Your task to perform on an android device: View the shopping cart on newegg.com. Search for logitech g903 on newegg.com, select the first entry, and add it to the cart. Image 0: 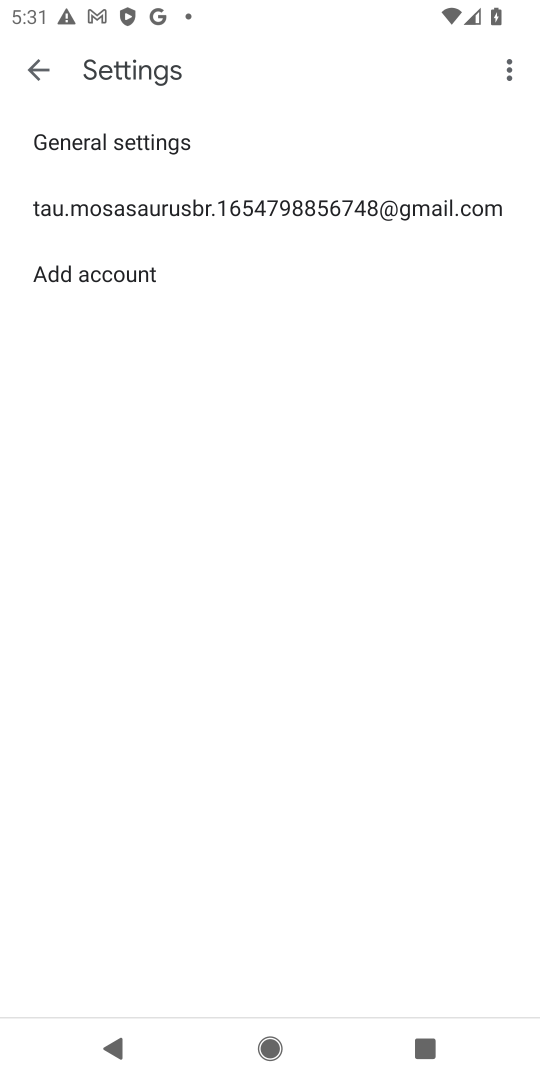
Step 0: press home button
Your task to perform on an android device: View the shopping cart on newegg.com. Search for logitech g903 on newegg.com, select the first entry, and add it to the cart. Image 1: 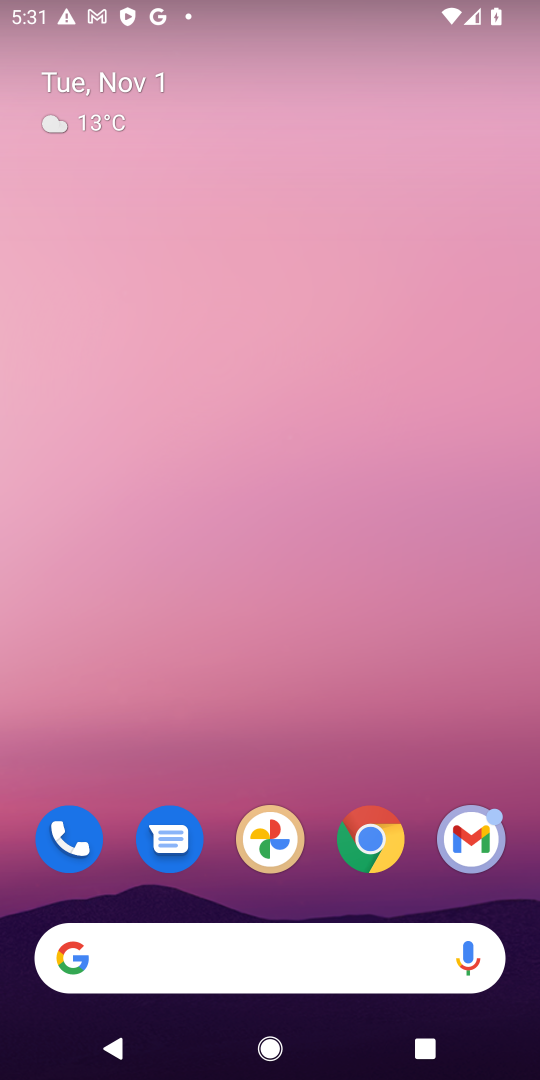
Step 1: drag from (326, 875) to (375, 159)
Your task to perform on an android device: View the shopping cart on newegg.com. Search for logitech g903 on newegg.com, select the first entry, and add it to the cart. Image 2: 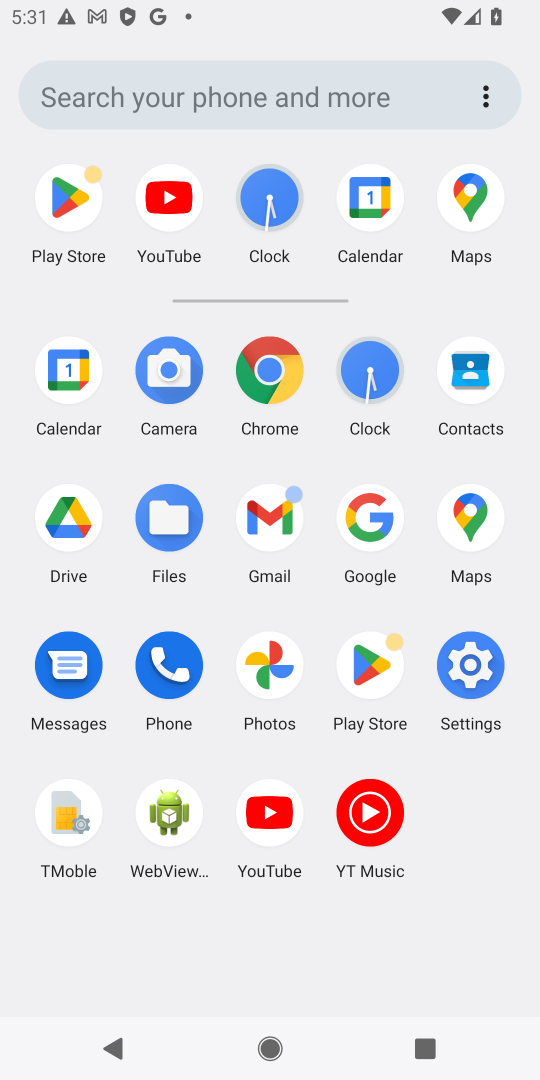
Step 2: click (264, 360)
Your task to perform on an android device: View the shopping cart on newegg.com. Search for logitech g903 on newegg.com, select the first entry, and add it to the cart. Image 3: 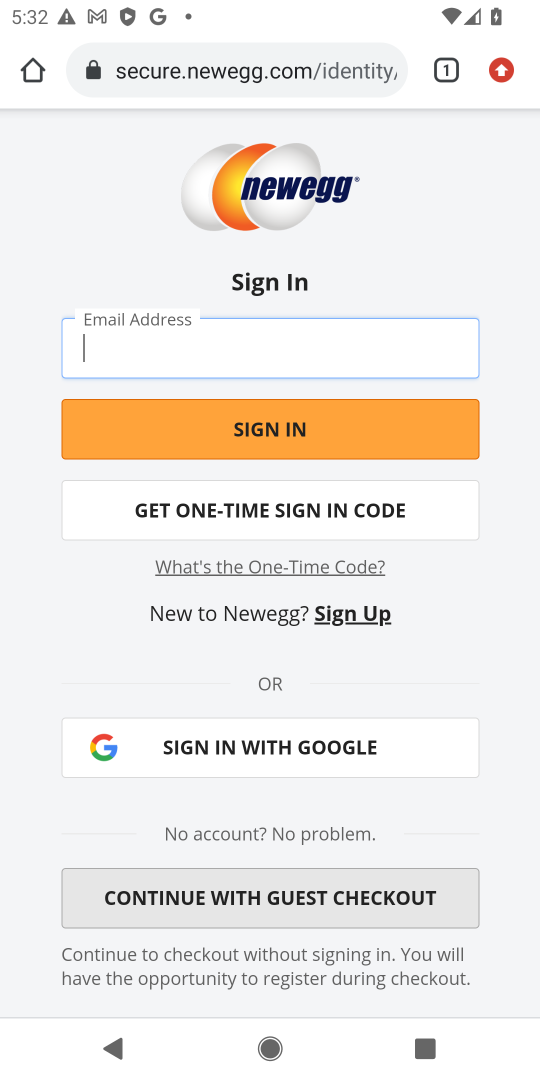
Step 3: click (344, 75)
Your task to perform on an android device: View the shopping cart on newegg.com. Search for logitech g903 on newegg.com, select the first entry, and add it to the cart. Image 4: 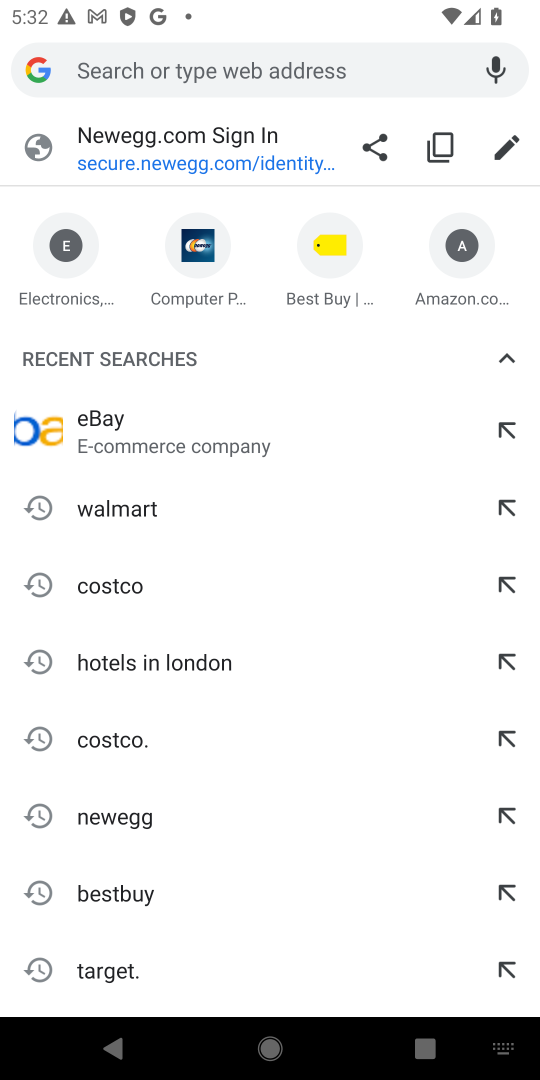
Step 4: type "newegg.com"
Your task to perform on an android device: View the shopping cart on newegg.com. Search for logitech g903 on newegg.com, select the first entry, and add it to the cart. Image 5: 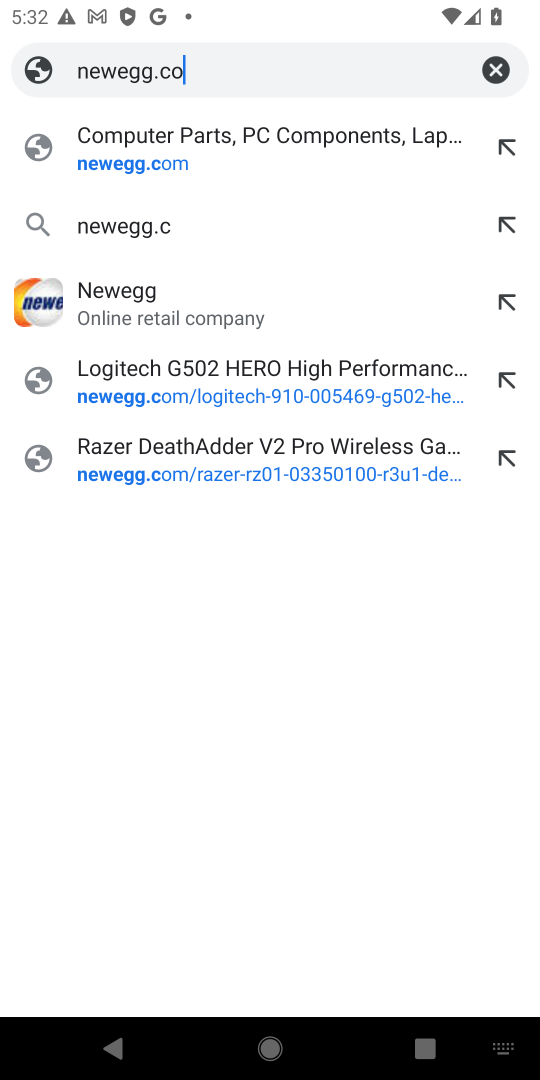
Step 5: press enter
Your task to perform on an android device: View the shopping cart on newegg.com. Search for logitech g903 on newegg.com, select the first entry, and add it to the cart. Image 6: 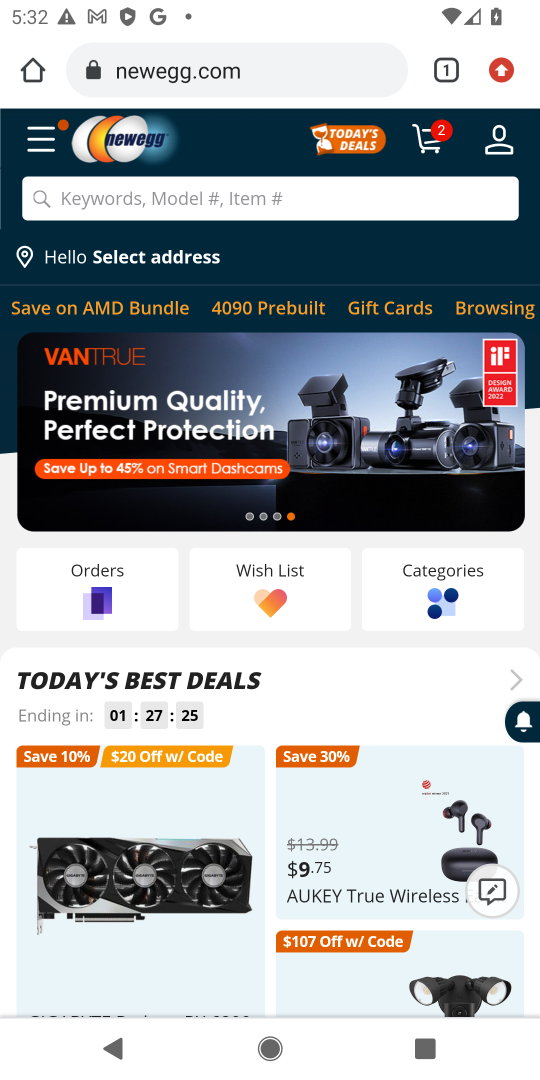
Step 6: click (440, 125)
Your task to perform on an android device: View the shopping cart on newegg.com. Search for logitech g903 on newegg.com, select the first entry, and add it to the cart. Image 7: 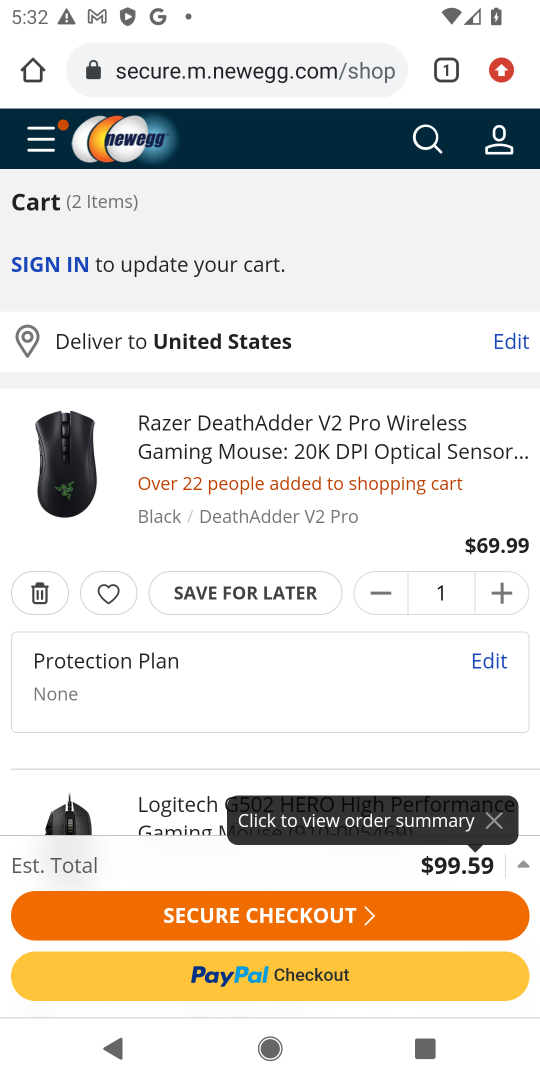
Step 7: click (435, 146)
Your task to perform on an android device: View the shopping cart on newegg.com. Search for logitech g903 on newegg.com, select the first entry, and add it to the cart. Image 8: 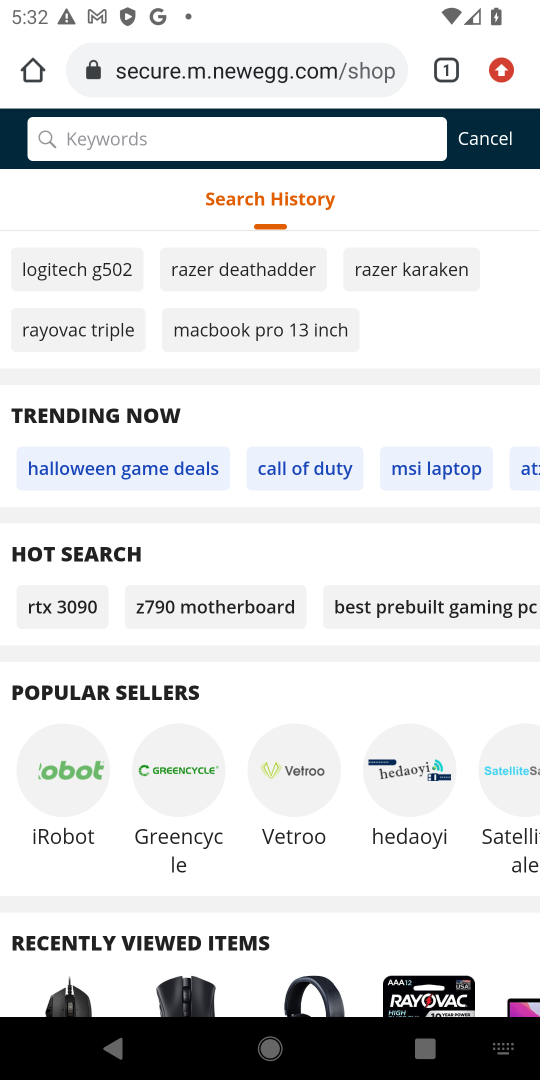
Step 8: type "logitech g903"
Your task to perform on an android device: View the shopping cart on newegg.com. Search for logitech g903 on newegg.com, select the first entry, and add it to the cart. Image 9: 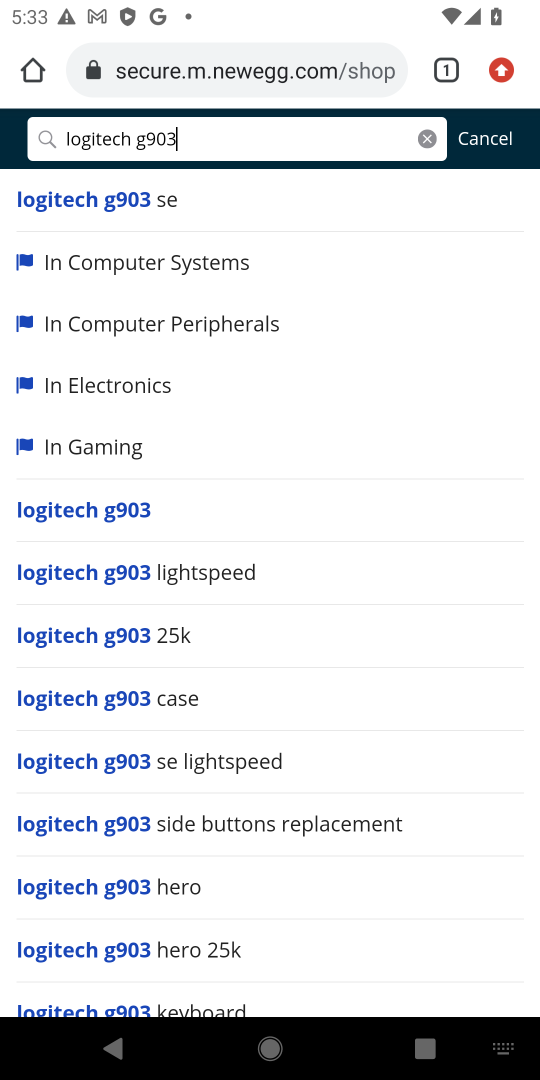
Step 9: press enter
Your task to perform on an android device: View the shopping cart on newegg.com. Search for logitech g903 on newegg.com, select the first entry, and add it to the cart. Image 10: 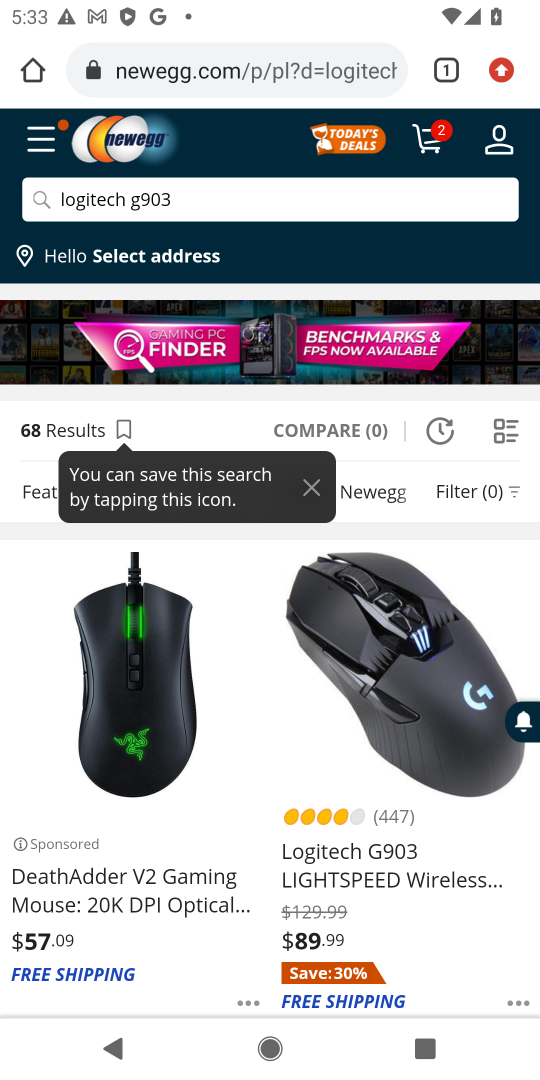
Step 10: click (422, 680)
Your task to perform on an android device: View the shopping cart on newegg.com. Search for logitech g903 on newegg.com, select the first entry, and add it to the cart. Image 11: 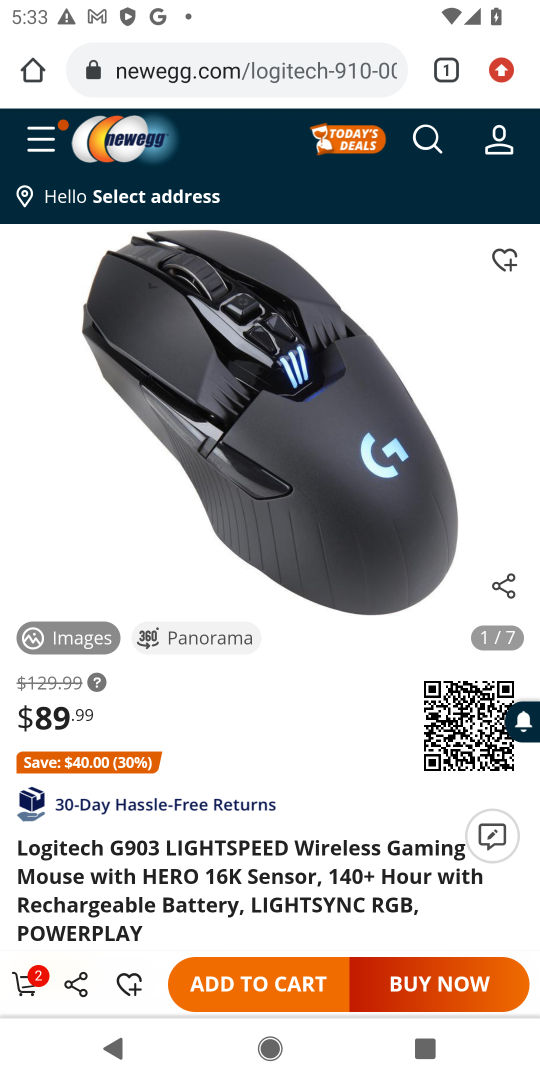
Step 11: click (289, 989)
Your task to perform on an android device: View the shopping cart on newegg.com. Search for logitech g903 on newegg.com, select the first entry, and add it to the cart. Image 12: 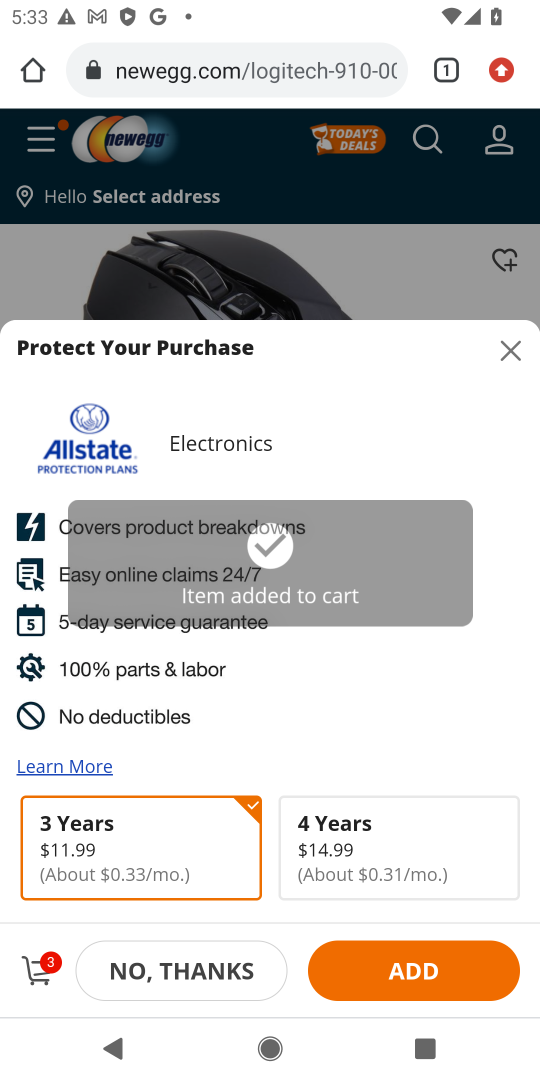
Step 12: click (37, 976)
Your task to perform on an android device: View the shopping cart on newegg.com. Search for logitech g903 on newegg.com, select the first entry, and add it to the cart. Image 13: 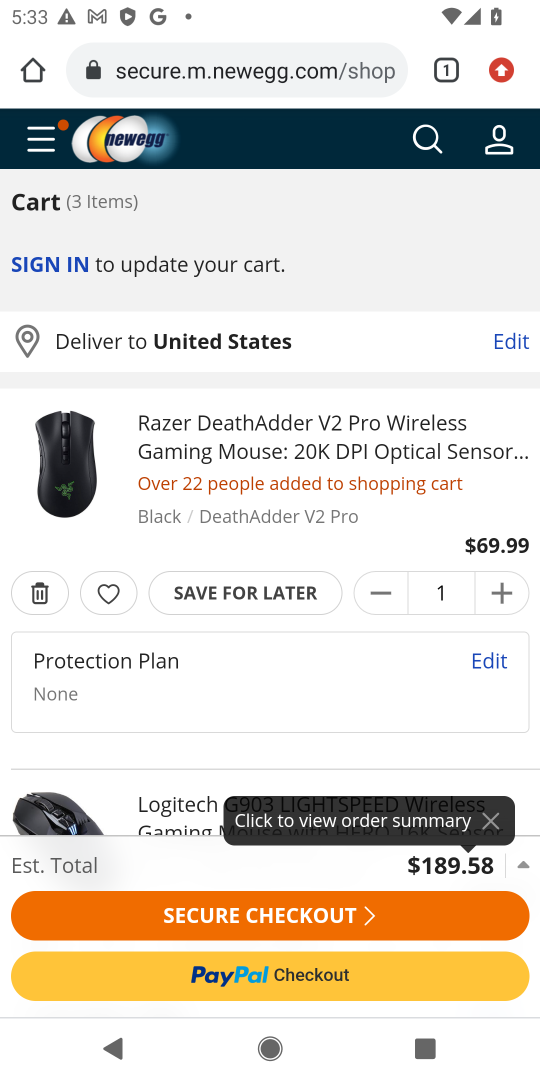
Step 13: task complete